Your task to perform on an android device: move an email to a new category in the gmail app Image 0: 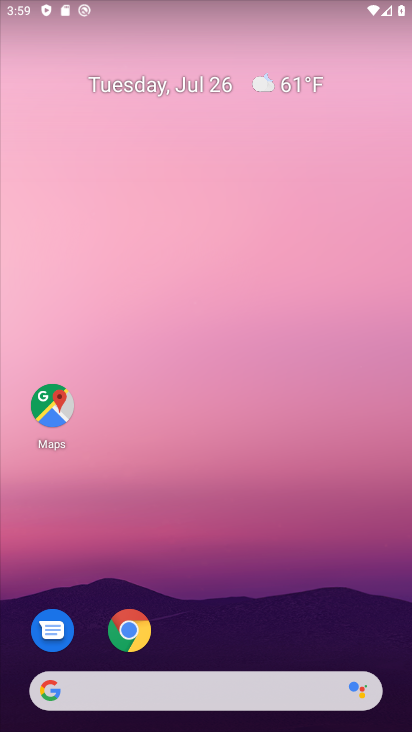
Step 0: drag from (226, 431) to (168, 81)
Your task to perform on an android device: move an email to a new category in the gmail app Image 1: 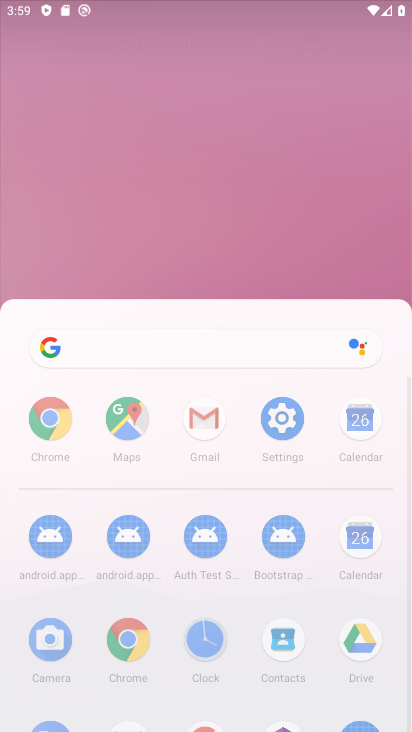
Step 1: drag from (225, 494) to (167, 60)
Your task to perform on an android device: move an email to a new category in the gmail app Image 2: 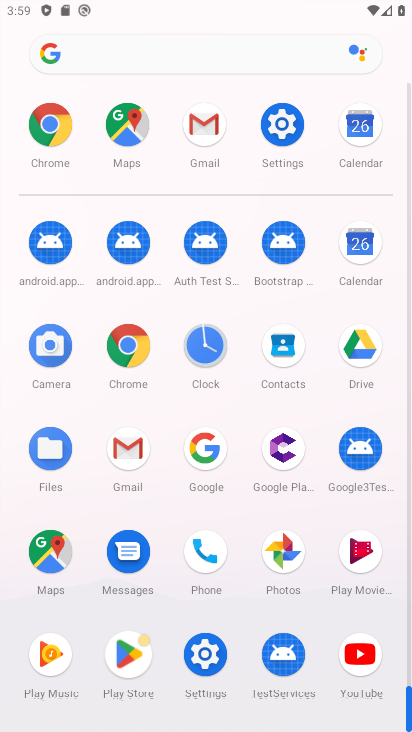
Step 2: drag from (255, 362) to (206, 62)
Your task to perform on an android device: move an email to a new category in the gmail app Image 3: 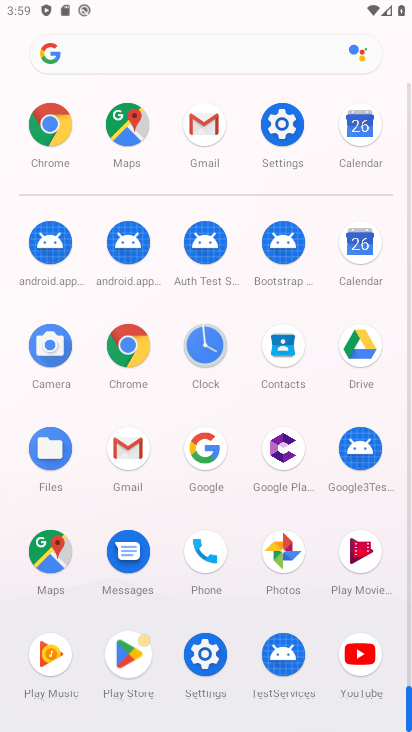
Step 3: click (123, 444)
Your task to perform on an android device: move an email to a new category in the gmail app Image 4: 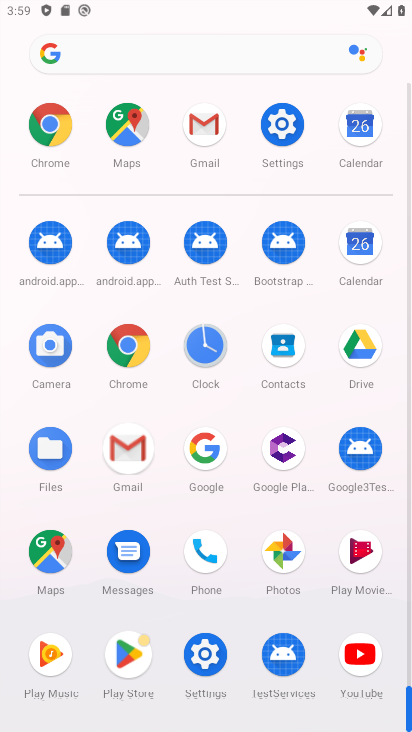
Step 4: click (126, 445)
Your task to perform on an android device: move an email to a new category in the gmail app Image 5: 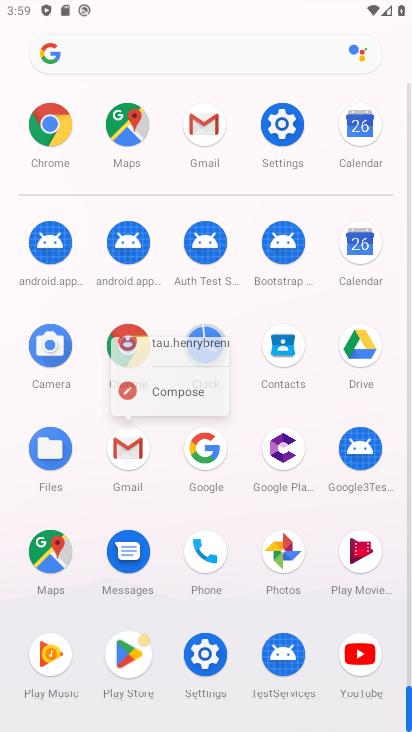
Step 5: click (131, 446)
Your task to perform on an android device: move an email to a new category in the gmail app Image 6: 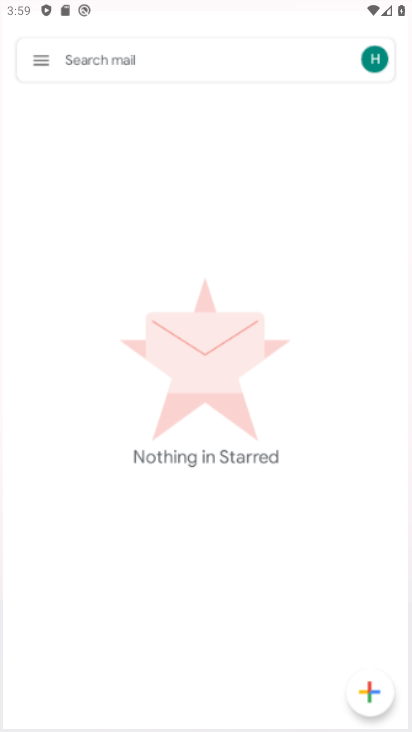
Step 6: click (133, 444)
Your task to perform on an android device: move an email to a new category in the gmail app Image 7: 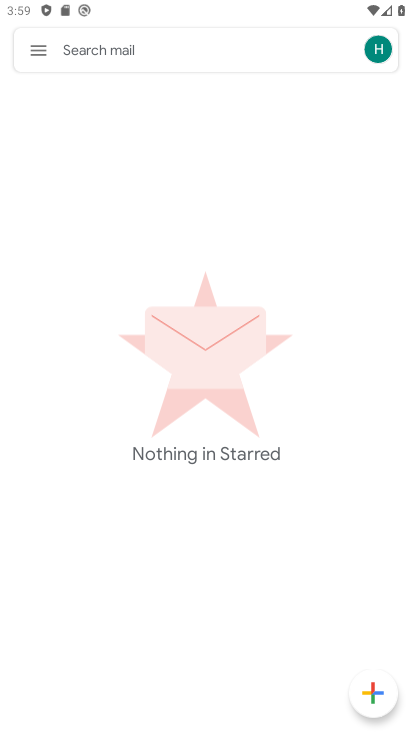
Step 7: click (33, 71)
Your task to perform on an android device: move an email to a new category in the gmail app Image 8: 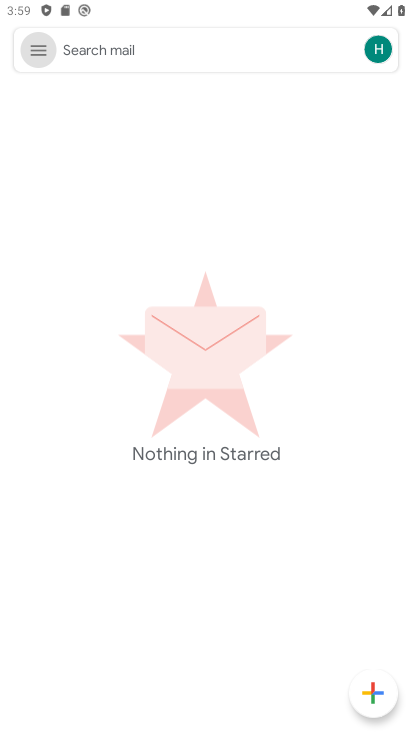
Step 8: click (35, 43)
Your task to perform on an android device: move an email to a new category in the gmail app Image 9: 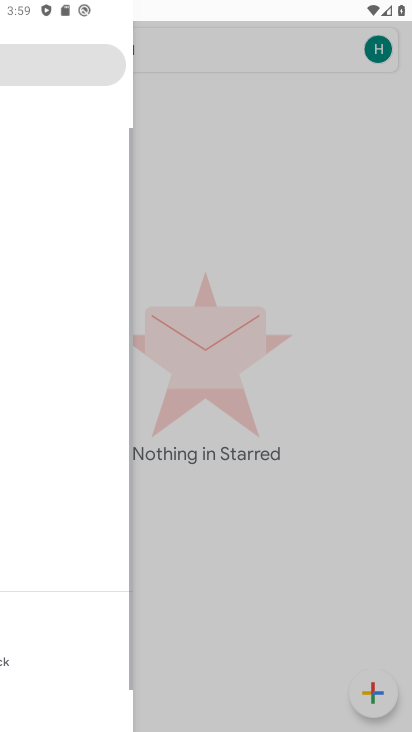
Step 9: click (36, 42)
Your task to perform on an android device: move an email to a new category in the gmail app Image 10: 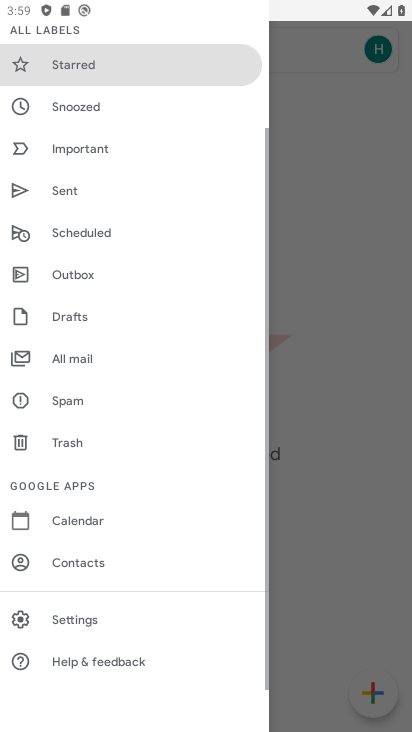
Step 10: click (38, 42)
Your task to perform on an android device: move an email to a new category in the gmail app Image 11: 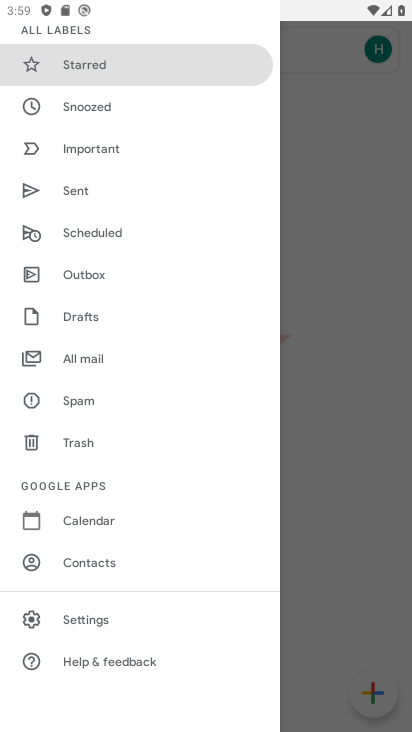
Step 11: click (85, 355)
Your task to perform on an android device: move an email to a new category in the gmail app Image 12: 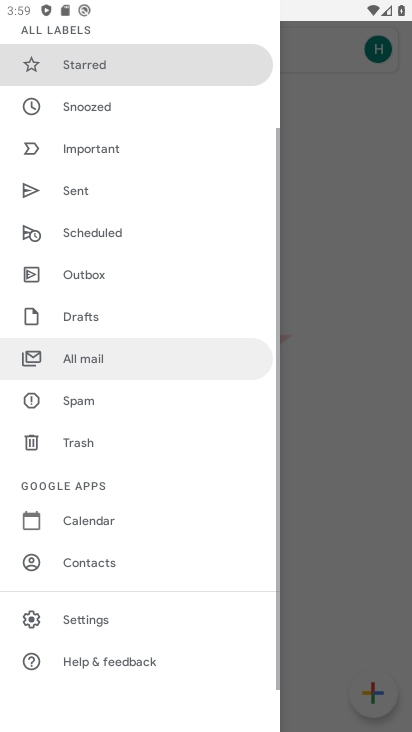
Step 12: click (84, 352)
Your task to perform on an android device: move an email to a new category in the gmail app Image 13: 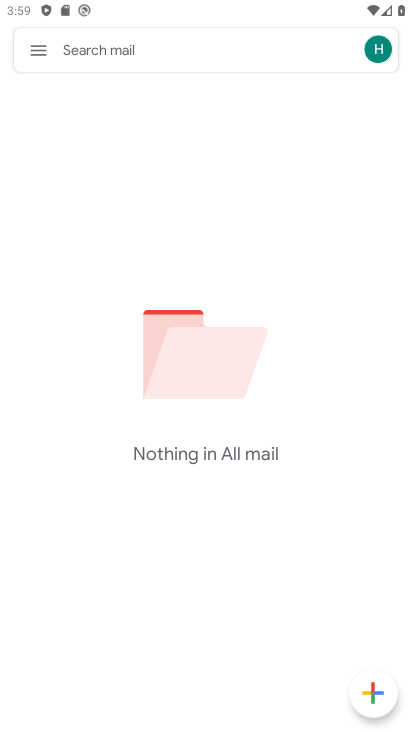
Step 13: task complete